Your task to perform on an android device: toggle data saver in the chrome app Image 0: 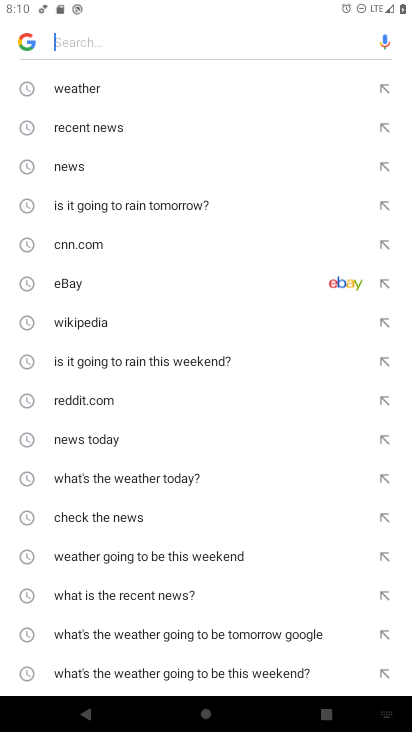
Step 0: press back button
Your task to perform on an android device: toggle data saver in the chrome app Image 1: 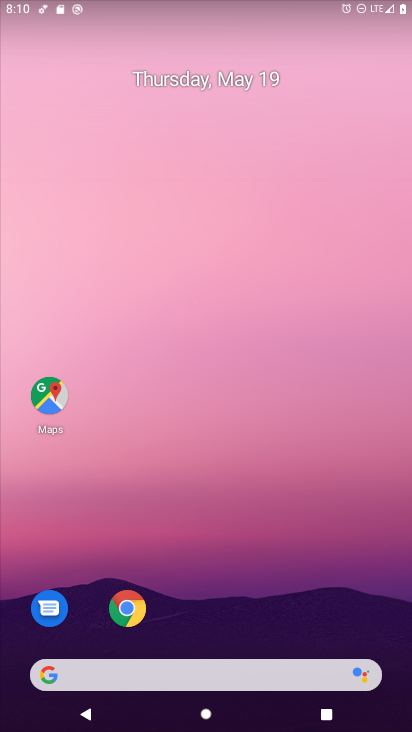
Step 1: click (127, 600)
Your task to perform on an android device: toggle data saver in the chrome app Image 2: 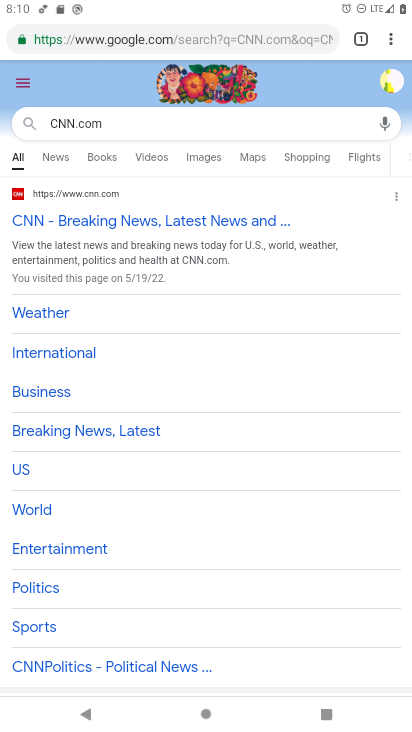
Step 2: click (389, 35)
Your task to perform on an android device: toggle data saver in the chrome app Image 3: 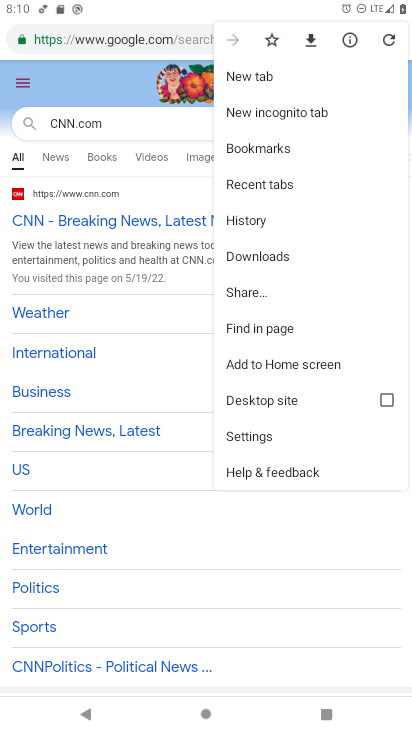
Step 3: click (239, 432)
Your task to perform on an android device: toggle data saver in the chrome app Image 4: 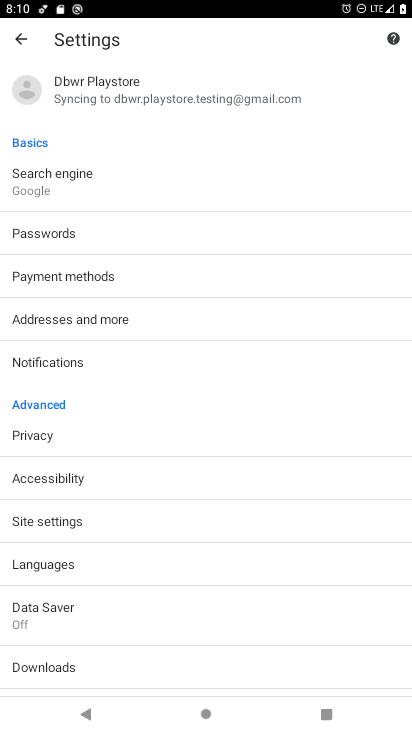
Step 4: click (38, 601)
Your task to perform on an android device: toggle data saver in the chrome app Image 5: 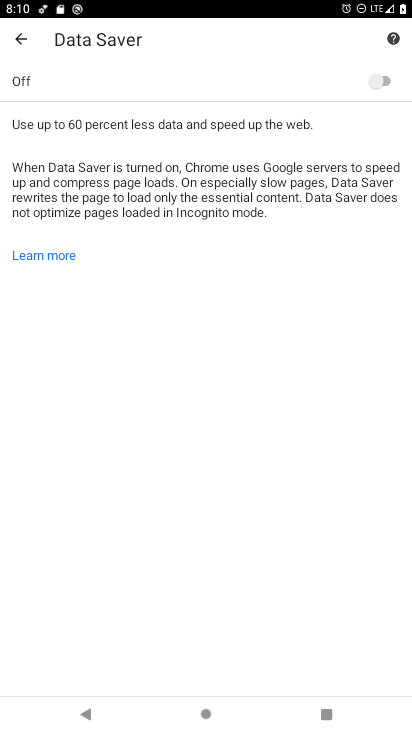
Step 5: click (384, 75)
Your task to perform on an android device: toggle data saver in the chrome app Image 6: 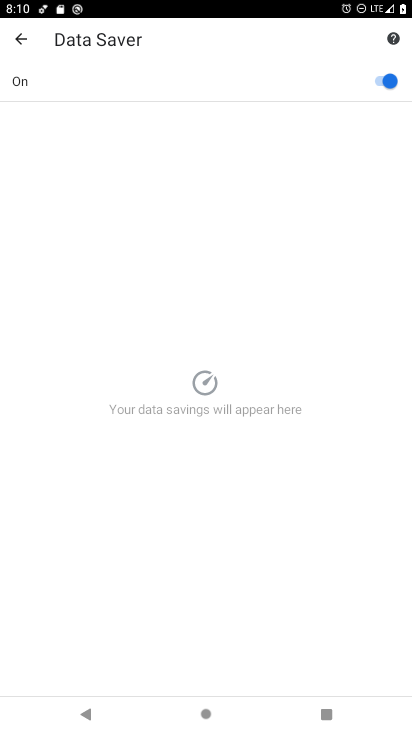
Step 6: task complete